Your task to perform on an android device: turn on sleep mode Image 0: 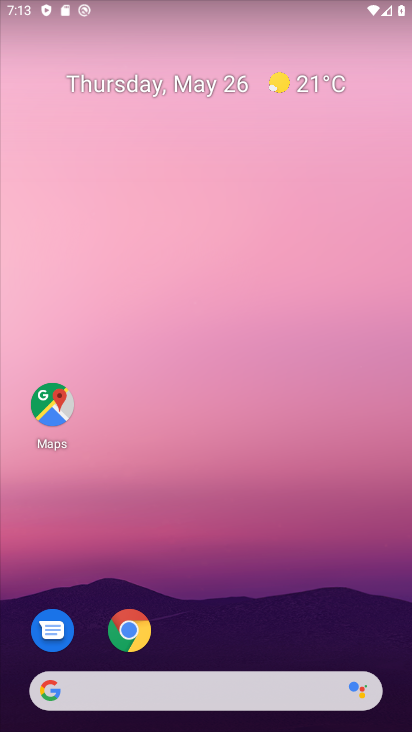
Step 0: drag from (285, 636) to (218, 182)
Your task to perform on an android device: turn on sleep mode Image 1: 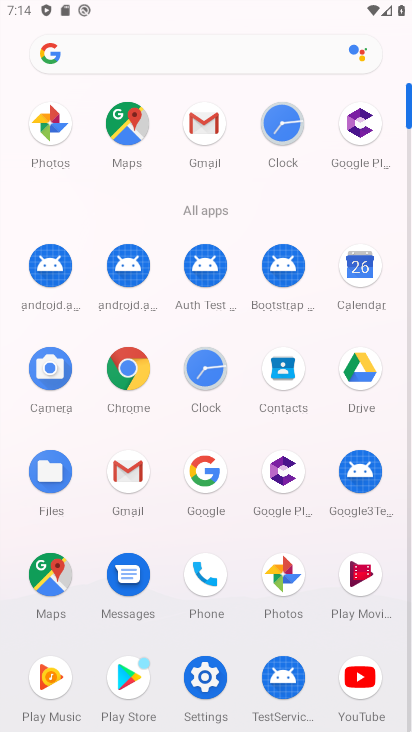
Step 1: click (205, 677)
Your task to perform on an android device: turn on sleep mode Image 2: 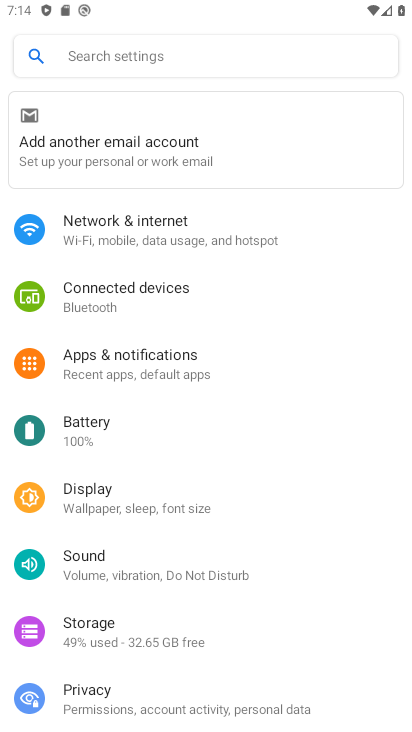
Step 2: click (141, 507)
Your task to perform on an android device: turn on sleep mode Image 3: 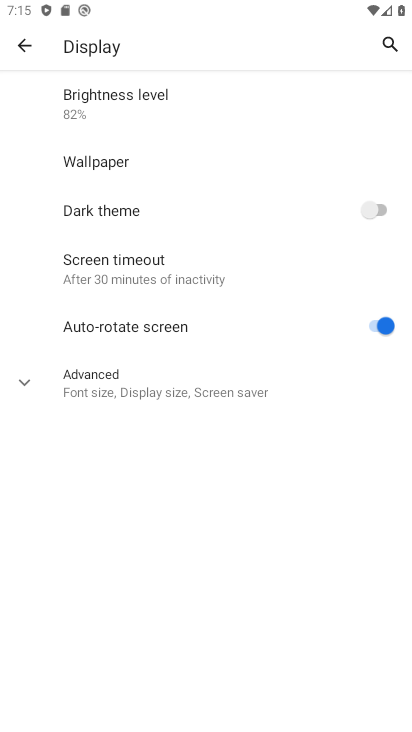
Step 3: click (182, 388)
Your task to perform on an android device: turn on sleep mode Image 4: 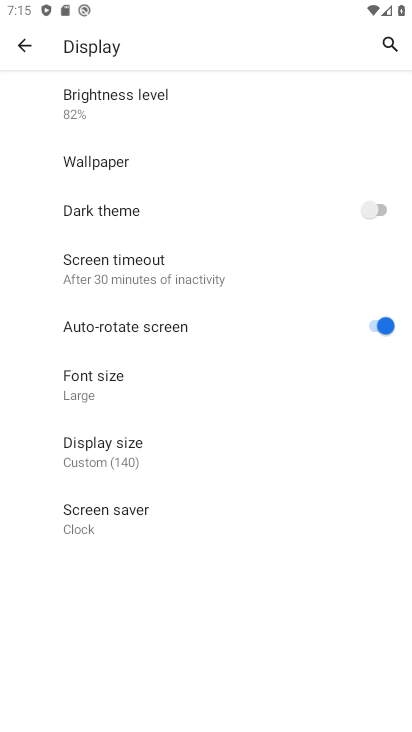
Step 4: click (124, 375)
Your task to perform on an android device: turn on sleep mode Image 5: 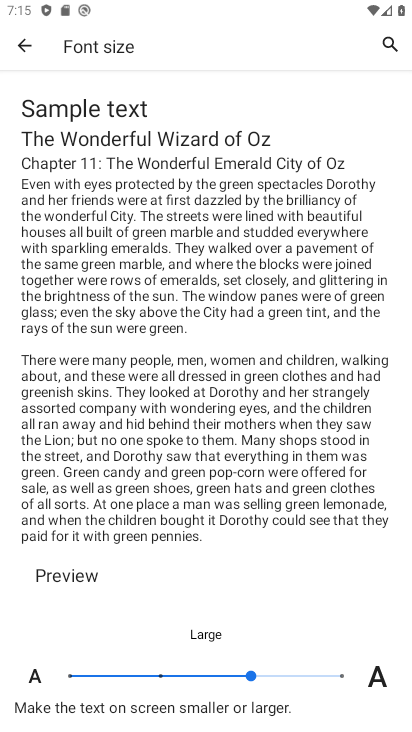
Step 5: press back button
Your task to perform on an android device: turn on sleep mode Image 6: 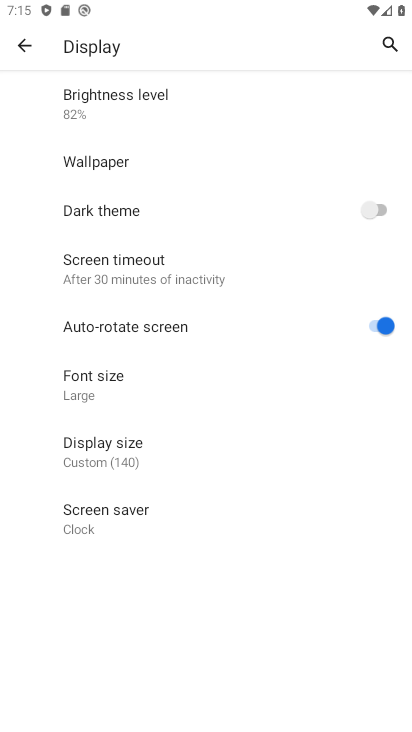
Step 6: click (105, 281)
Your task to perform on an android device: turn on sleep mode Image 7: 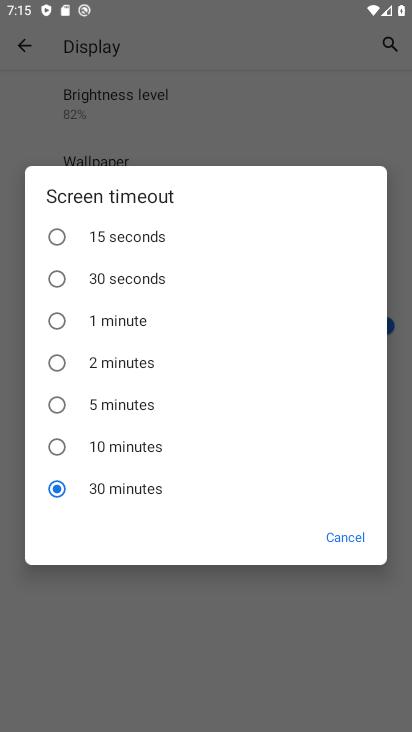
Step 7: task complete